Your task to perform on an android device: visit the assistant section in the google photos Image 0: 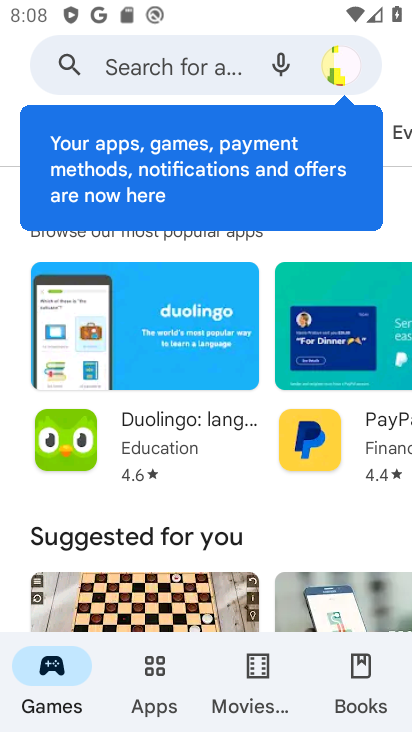
Step 0: press home button
Your task to perform on an android device: visit the assistant section in the google photos Image 1: 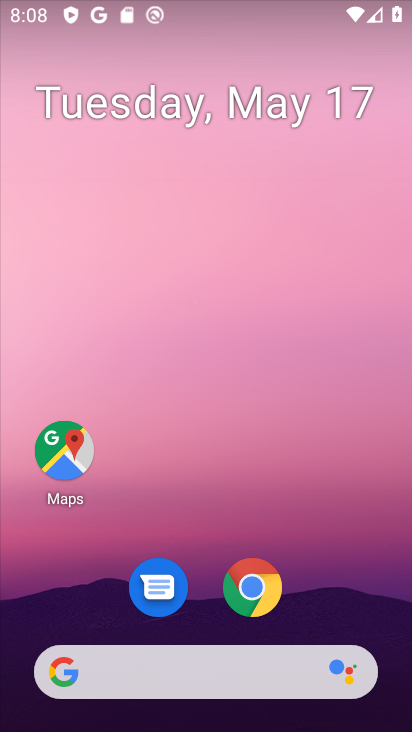
Step 1: drag from (22, 626) to (321, 97)
Your task to perform on an android device: visit the assistant section in the google photos Image 2: 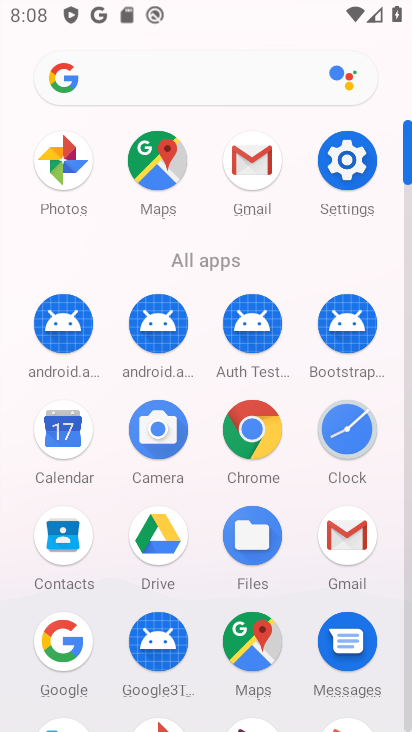
Step 2: click (74, 178)
Your task to perform on an android device: visit the assistant section in the google photos Image 3: 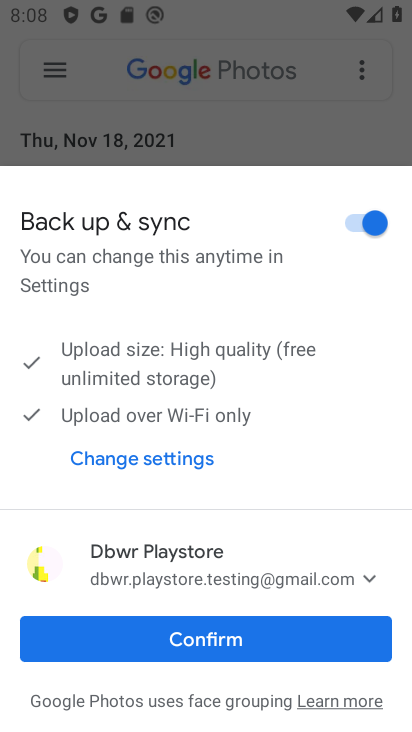
Step 3: click (189, 645)
Your task to perform on an android device: visit the assistant section in the google photos Image 4: 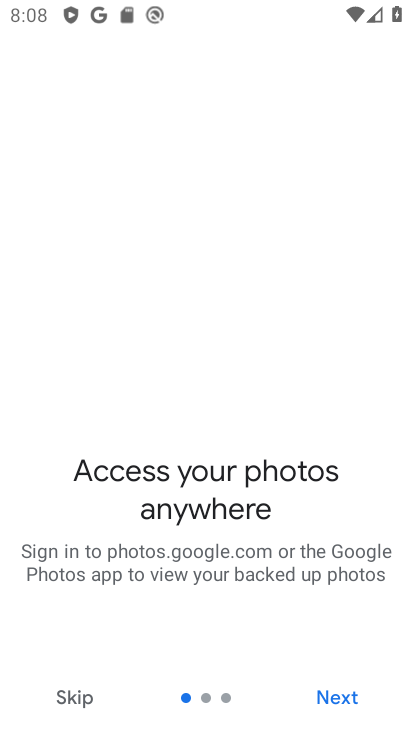
Step 4: click (320, 696)
Your task to perform on an android device: visit the assistant section in the google photos Image 5: 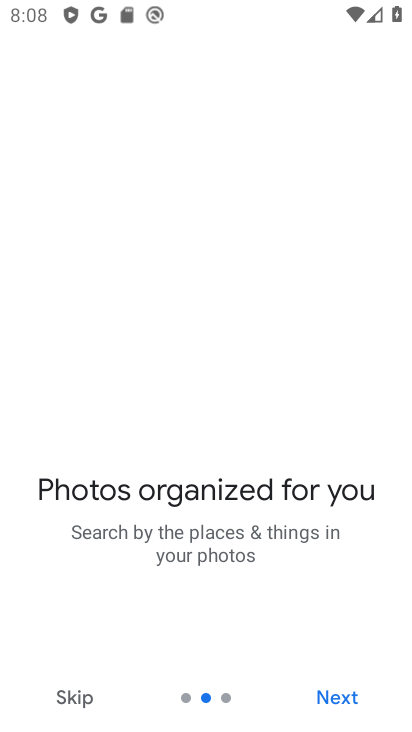
Step 5: click (321, 695)
Your task to perform on an android device: visit the assistant section in the google photos Image 6: 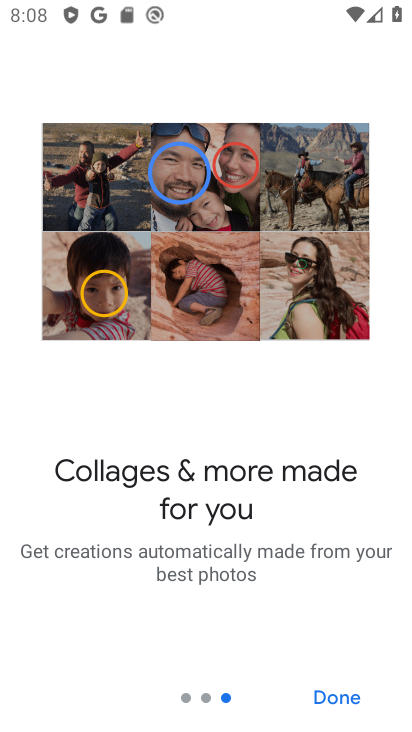
Step 6: click (332, 695)
Your task to perform on an android device: visit the assistant section in the google photos Image 7: 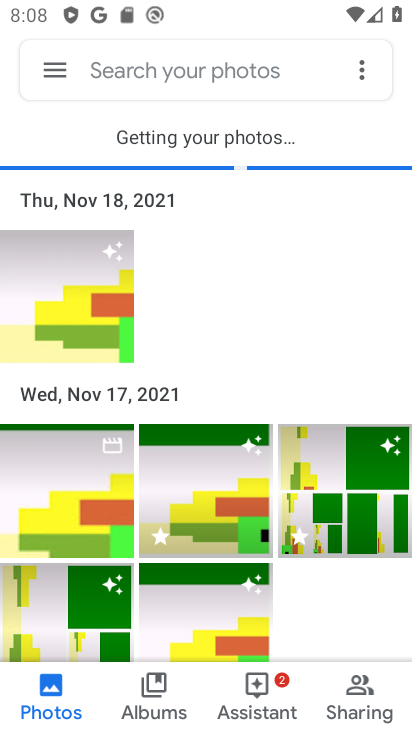
Step 7: click (267, 692)
Your task to perform on an android device: visit the assistant section in the google photos Image 8: 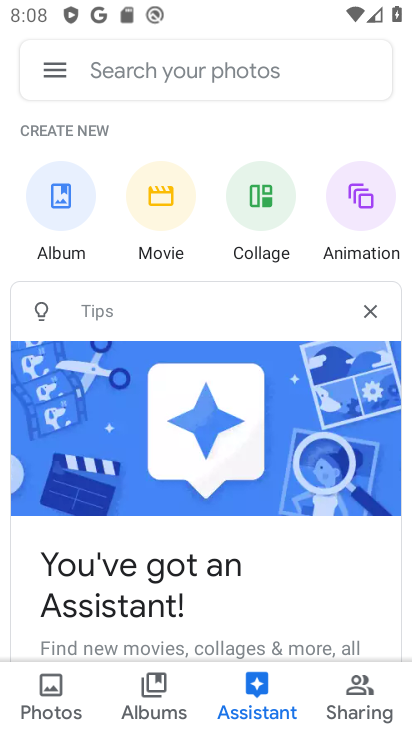
Step 8: task complete